Your task to perform on an android device: Search for seafood restaurants on Google Maps Image 0: 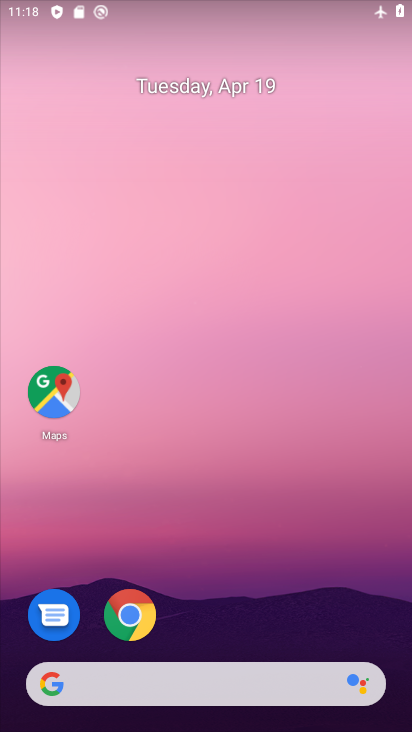
Step 0: click (62, 391)
Your task to perform on an android device: Search for seafood restaurants on Google Maps Image 1: 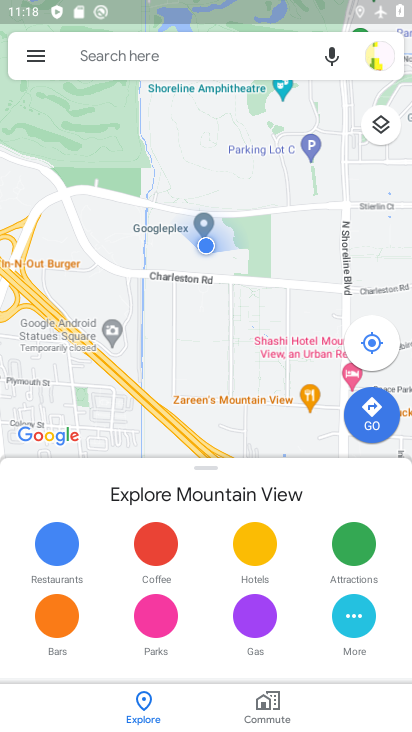
Step 1: click (145, 41)
Your task to perform on an android device: Search for seafood restaurants on Google Maps Image 2: 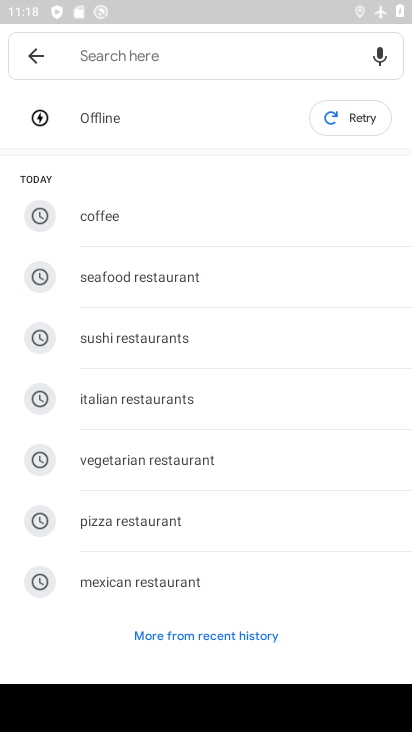
Step 2: type "seafood restaurants"
Your task to perform on an android device: Search for seafood restaurants on Google Maps Image 3: 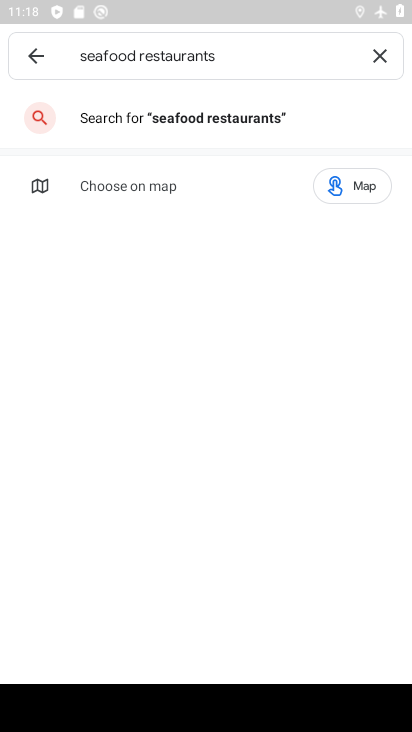
Step 3: task complete